Your task to perform on an android device: change notification settings in the gmail app Image 0: 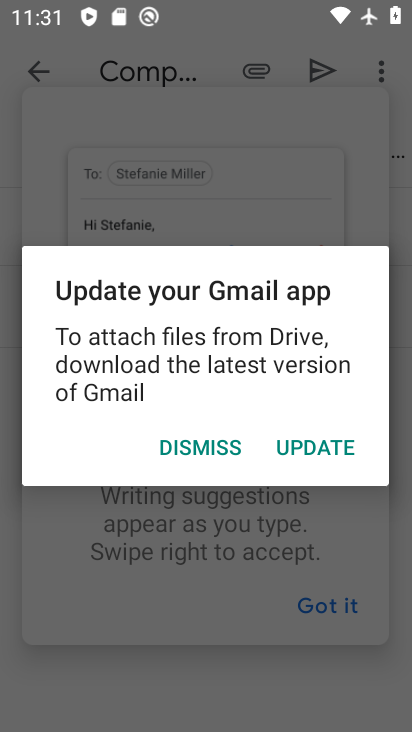
Step 0: press home button
Your task to perform on an android device: change notification settings in the gmail app Image 1: 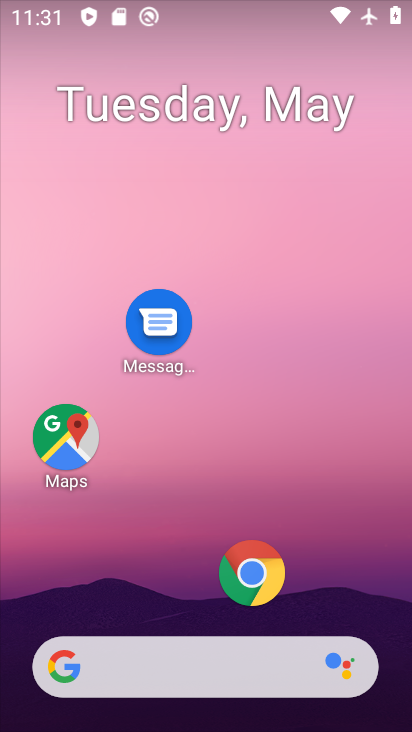
Step 1: drag from (172, 634) to (200, 119)
Your task to perform on an android device: change notification settings in the gmail app Image 2: 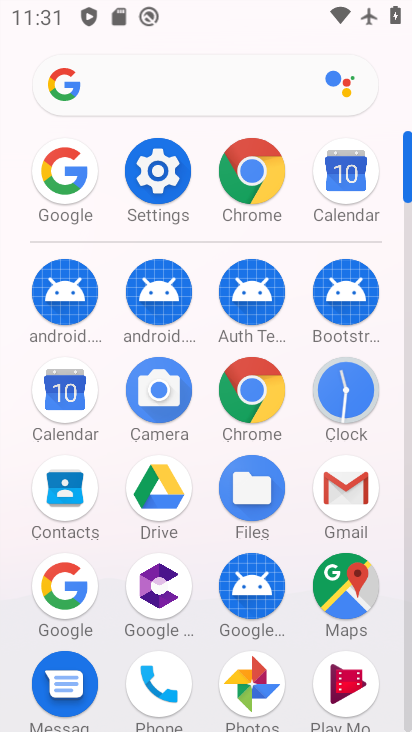
Step 2: click (329, 502)
Your task to perform on an android device: change notification settings in the gmail app Image 3: 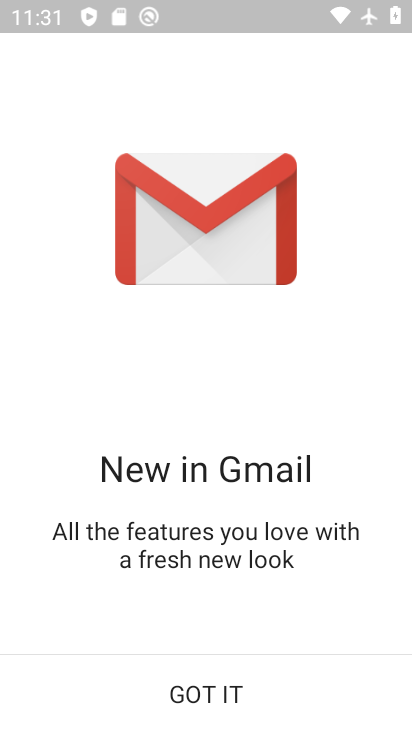
Step 3: click (184, 692)
Your task to perform on an android device: change notification settings in the gmail app Image 4: 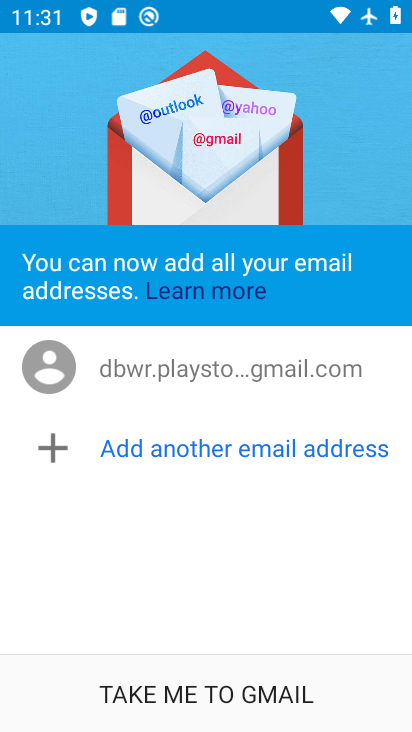
Step 4: click (209, 691)
Your task to perform on an android device: change notification settings in the gmail app Image 5: 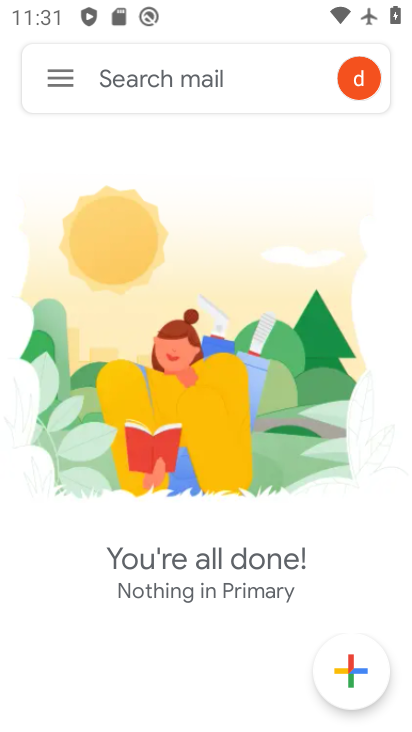
Step 5: click (66, 81)
Your task to perform on an android device: change notification settings in the gmail app Image 6: 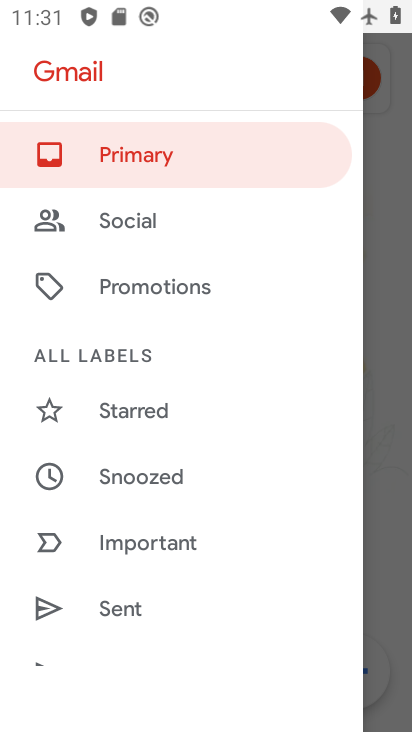
Step 6: drag from (144, 654) to (158, 217)
Your task to perform on an android device: change notification settings in the gmail app Image 7: 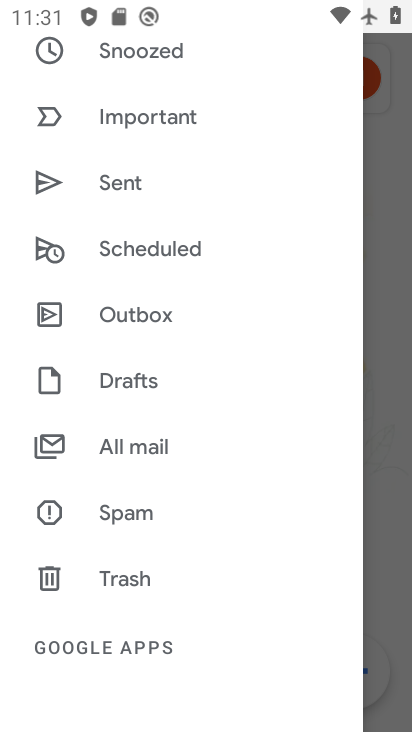
Step 7: drag from (137, 646) to (155, 376)
Your task to perform on an android device: change notification settings in the gmail app Image 8: 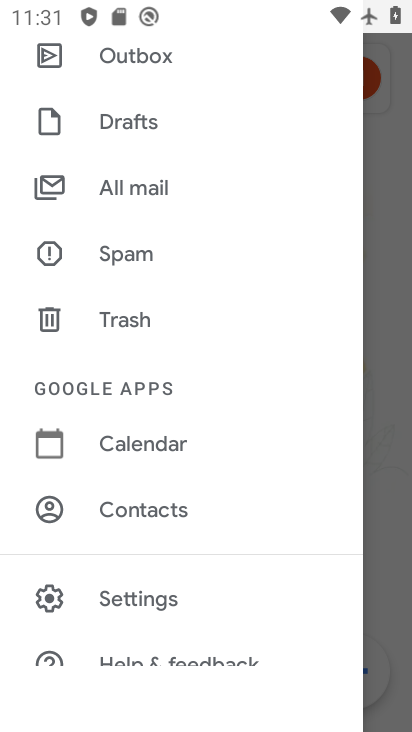
Step 8: click (113, 590)
Your task to perform on an android device: change notification settings in the gmail app Image 9: 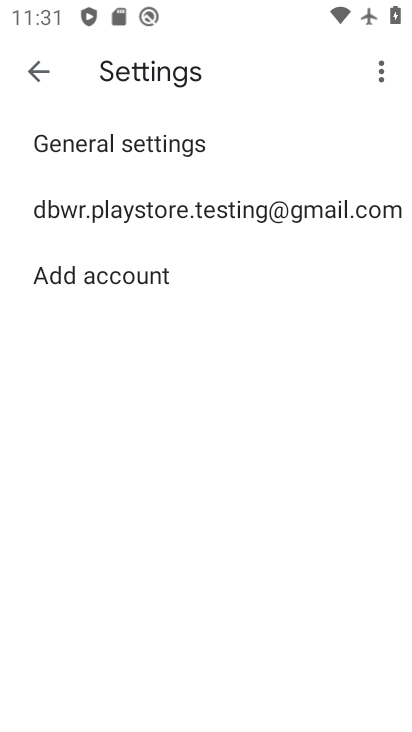
Step 9: click (108, 204)
Your task to perform on an android device: change notification settings in the gmail app Image 10: 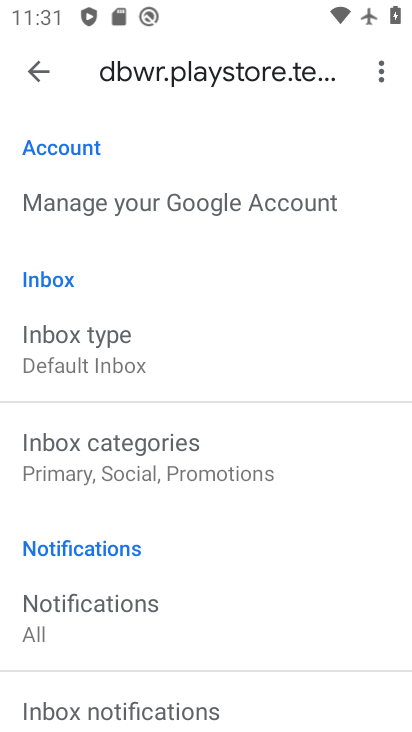
Step 10: click (95, 596)
Your task to perform on an android device: change notification settings in the gmail app Image 11: 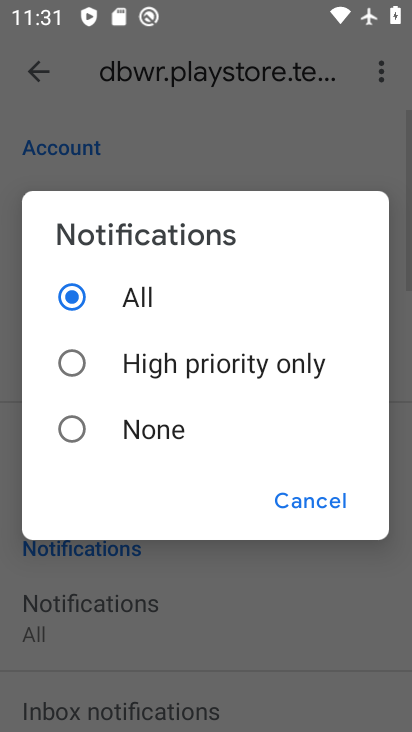
Step 11: click (74, 419)
Your task to perform on an android device: change notification settings in the gmail app Image 12: 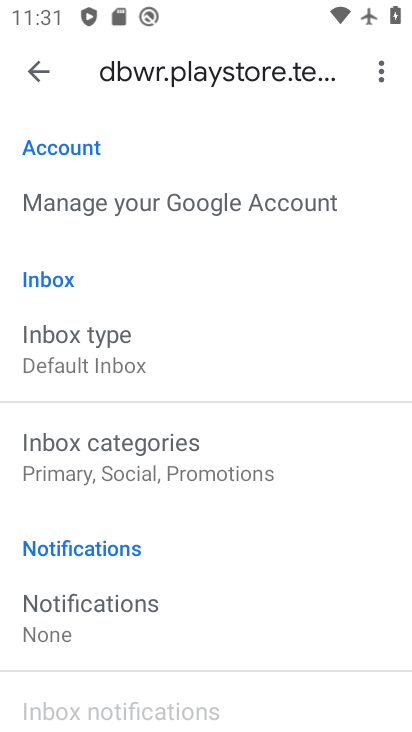
Step 12: task complete